Your task to perform on an android device: Go to wifi settings Image 0: 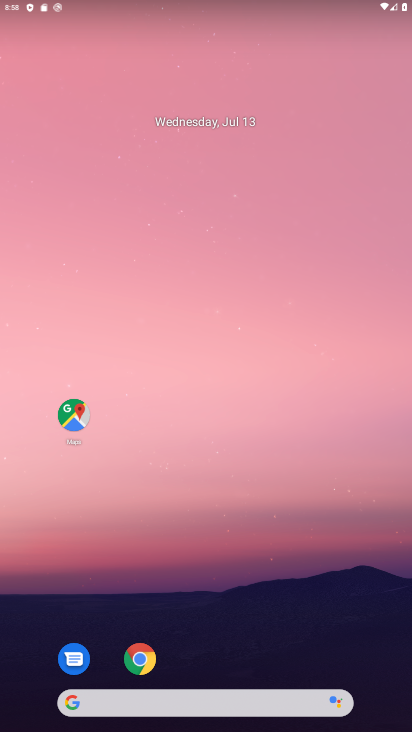
Step 0: drag from (378, 664) to (342, 195)
Your task to perform on an android device: Go to wifi settings Image 1: 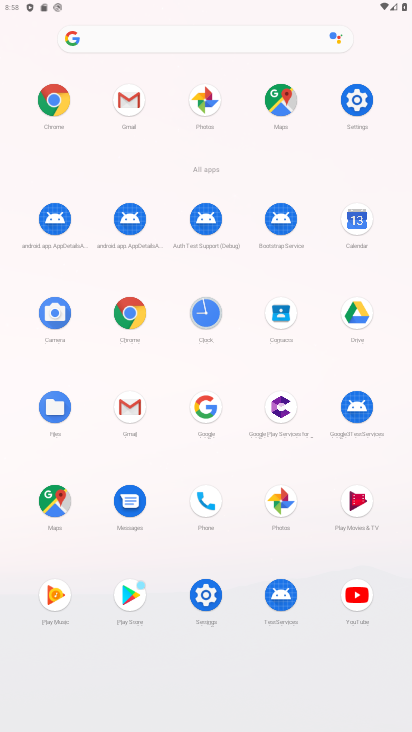
Step 1: click (203, 598)
Your task to perform on an android device: Go to wifi settings Image 2: 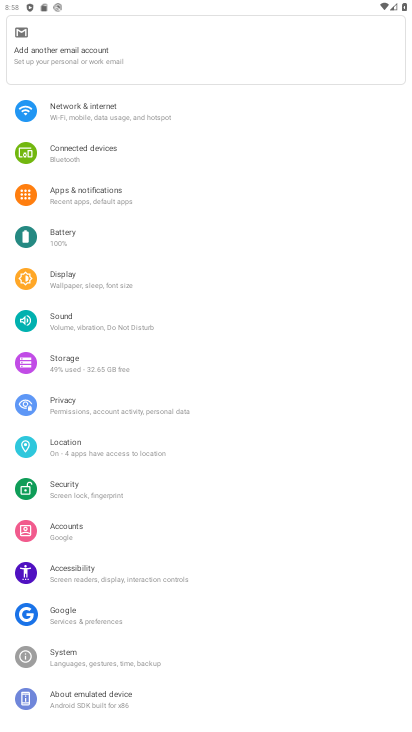
Step 2: click (76, 101)
Your task to perform on an android device: Go to wifi settings Image 3: 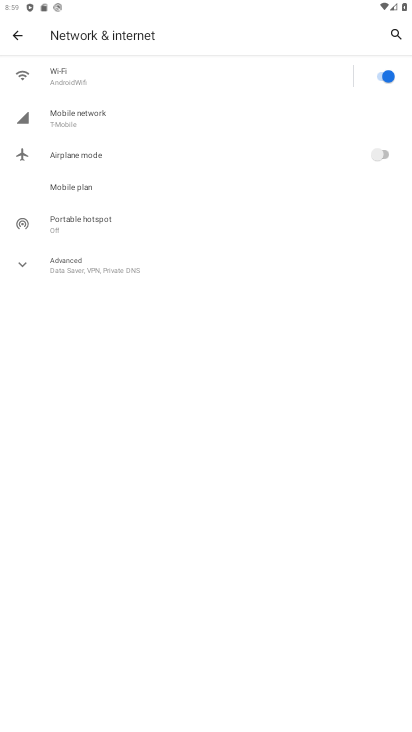
Step 3: click (63, 70)
Your task to perform on an android device: Go to wifi settings Image 4: 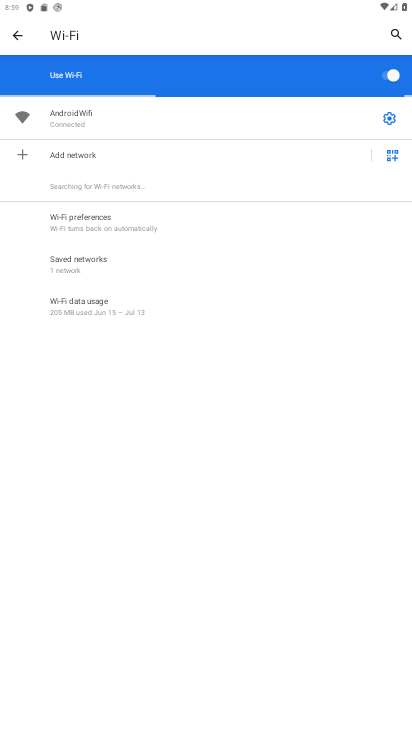
Step 4: task complete